Your task to perform on an android device: Open Android settings Image 0: 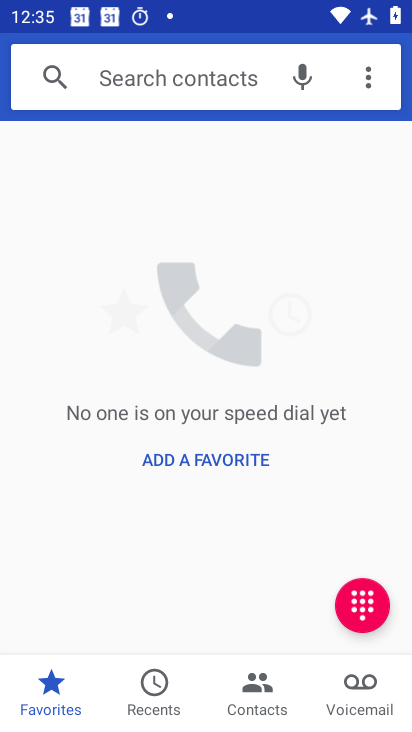
Step 0: press home button
Your task to perform on an android device: Open Android settings Image 1: 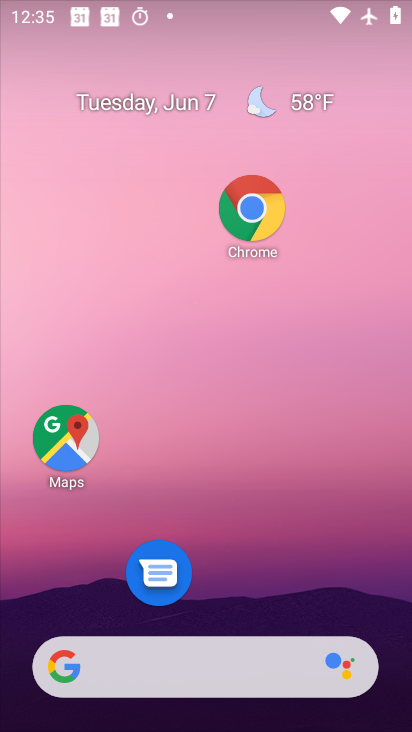
Step 1: drag from (224, 597) to (177, 207)
Your task to perform on an android device: Open Android settings Image 2: 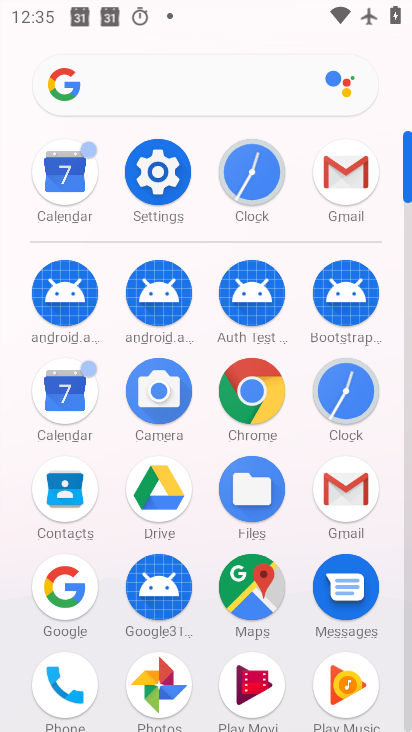
Step 2: click (160, 185)
Your task to perform on an android device: Open Android settings Image 3: 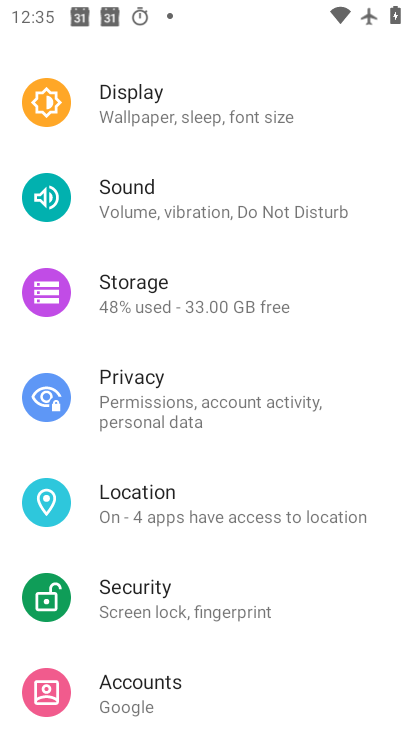
Step 3: task complete